Your task to perform on an android device: toggle show notifications on the lock screen Image 0: 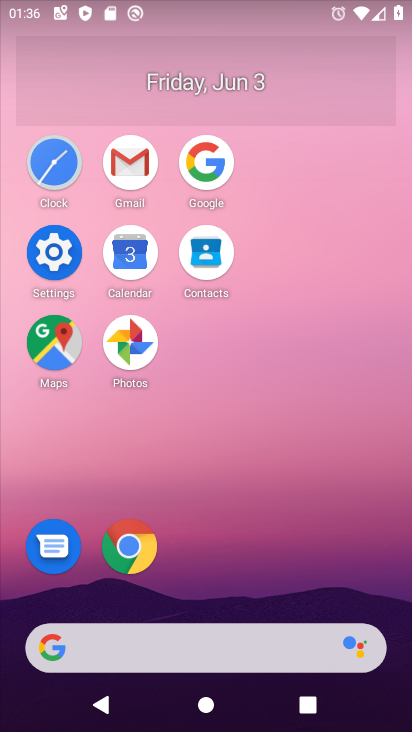
Step 0: click (81, 274)
Your task to perform on an android device: toggle show notifications on the lock screen Image 1: 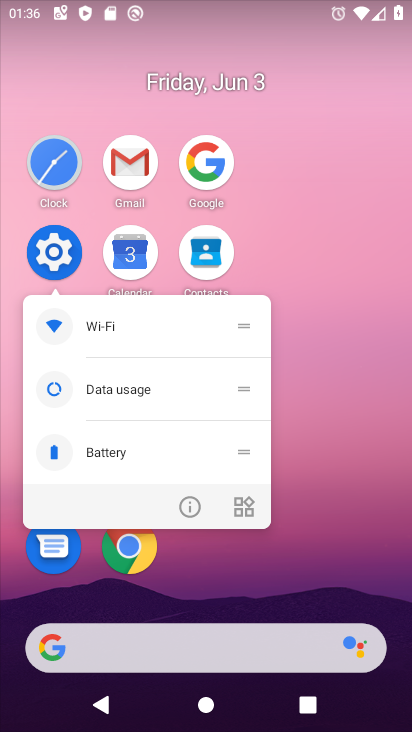
Step 1: click (58, 241)
Your task to perform on an android device: toggle show notifications on the lock screen Image 2: 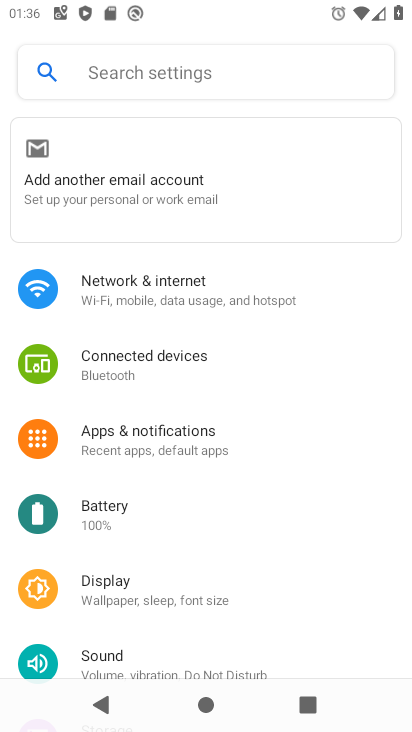
Step 2: click (202, 437)
Your task to perform on an android device: toggle show notifications on the lock screen Image 3: 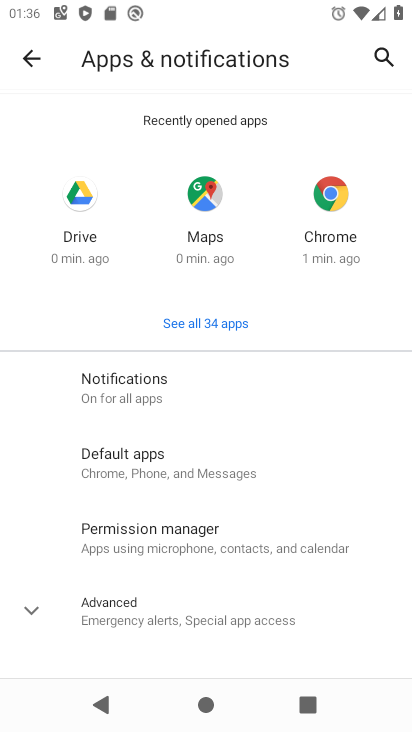
Step 3: click (178, 378)
Your task to perform on an android device: toggle show notifications on the lock screen Image 4: 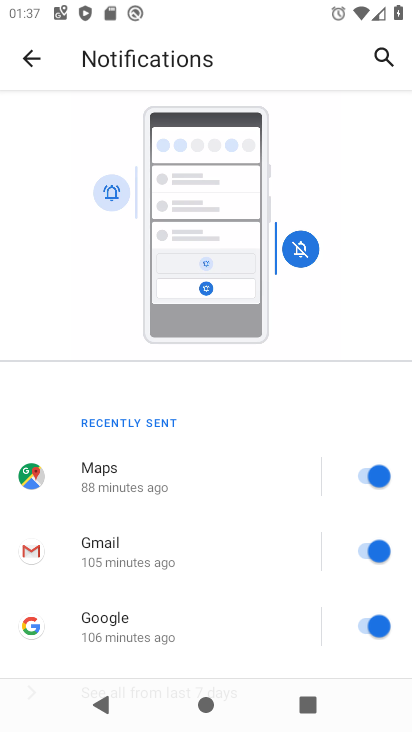
Step 4: drag from (223, 559) to (231, 231)
Your task to perform on an android device: toggle show notifications on the lock screen Image 5: 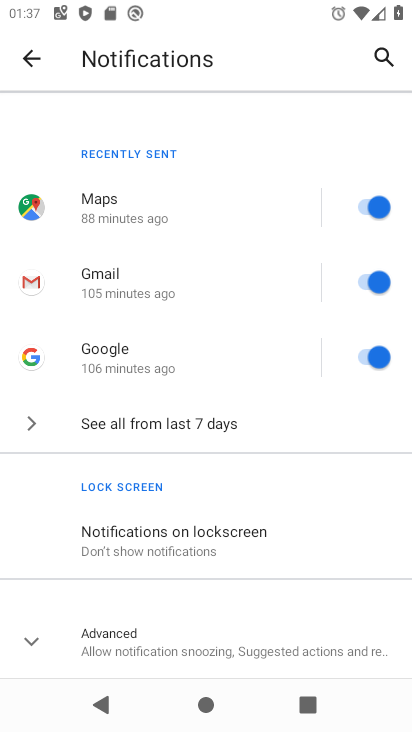
Step 5: click (251, 511)
Your task to perform on an android device: toggle show notifications on the lock screen Image 6: 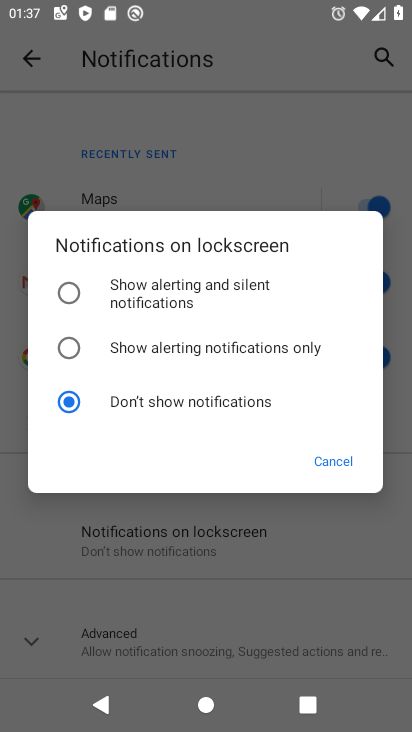
Step 6: click (137, 309)
Your task to perform on an android device: toggle show notifications on the lock screen Image 7: 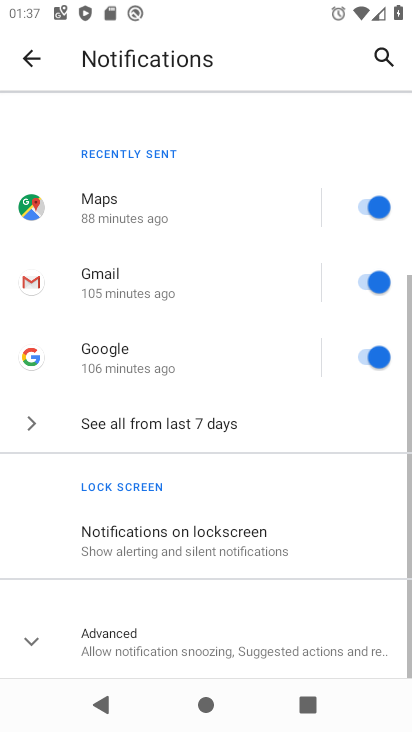
Step 7: task complete